Your task to perform on an android device: change notifications settings Image 0: 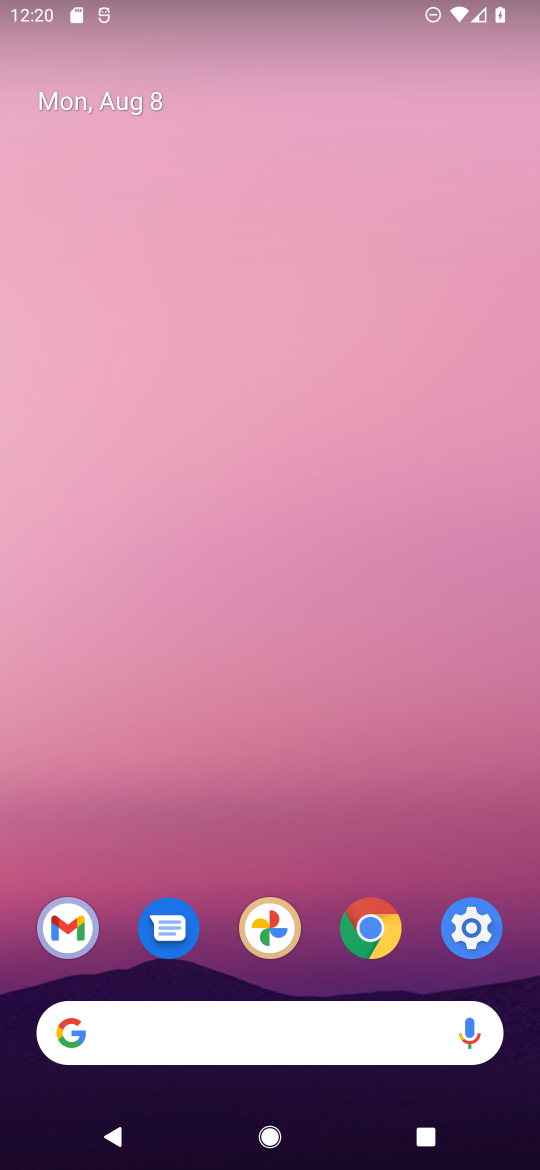
Step 0: drag from (377, 1044) to (251, 277)
Your task to perform on an android device: change notifications settings Image 1: 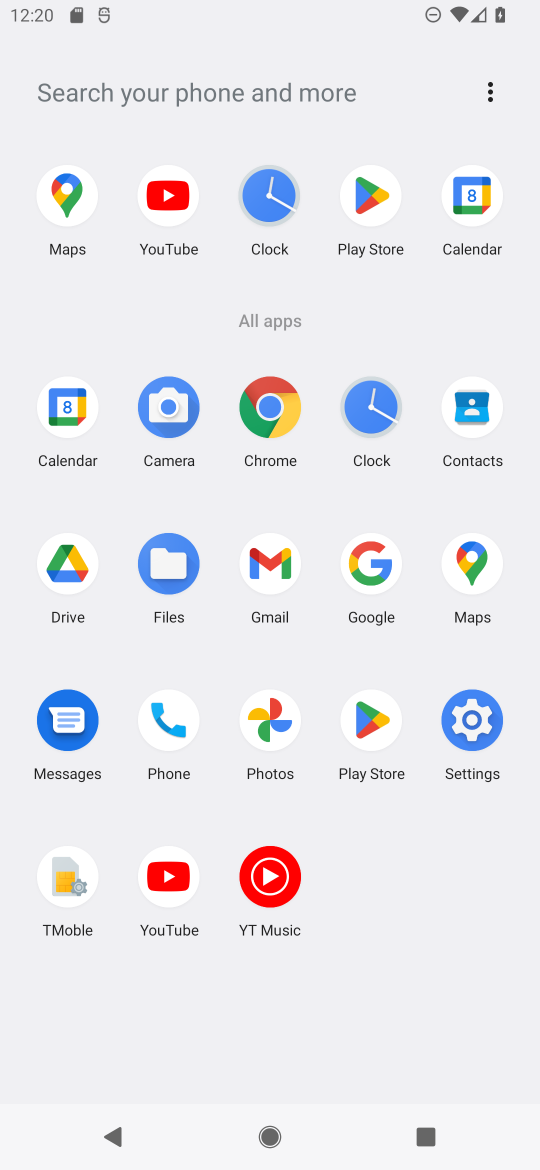
Step 1: click (467, 738)
Your task to perform on an android device: change notifications settings Image 2: 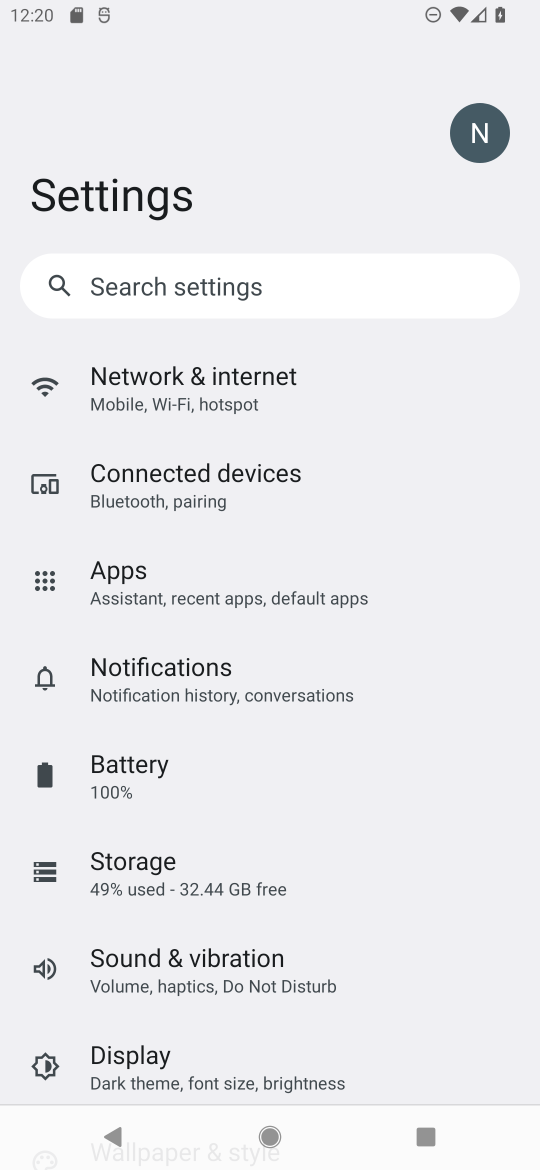
Step 2: click (169, 283)
Your task to perform on an android device: change notifications settings Image 3: 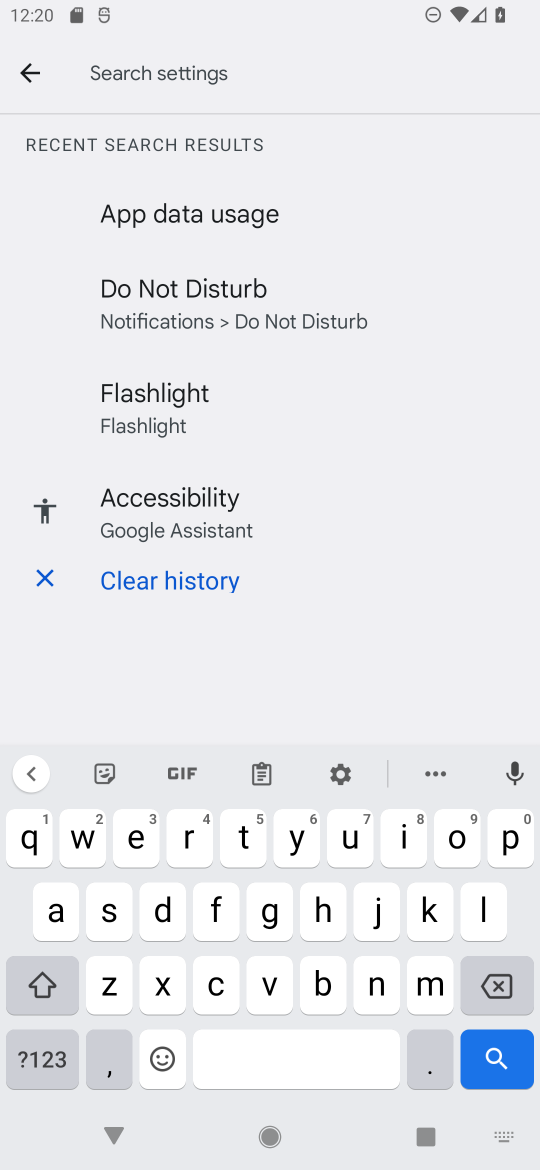
Step 3: click (374, 989)
Your task to perform on an android device: change notifications settings Image 4: 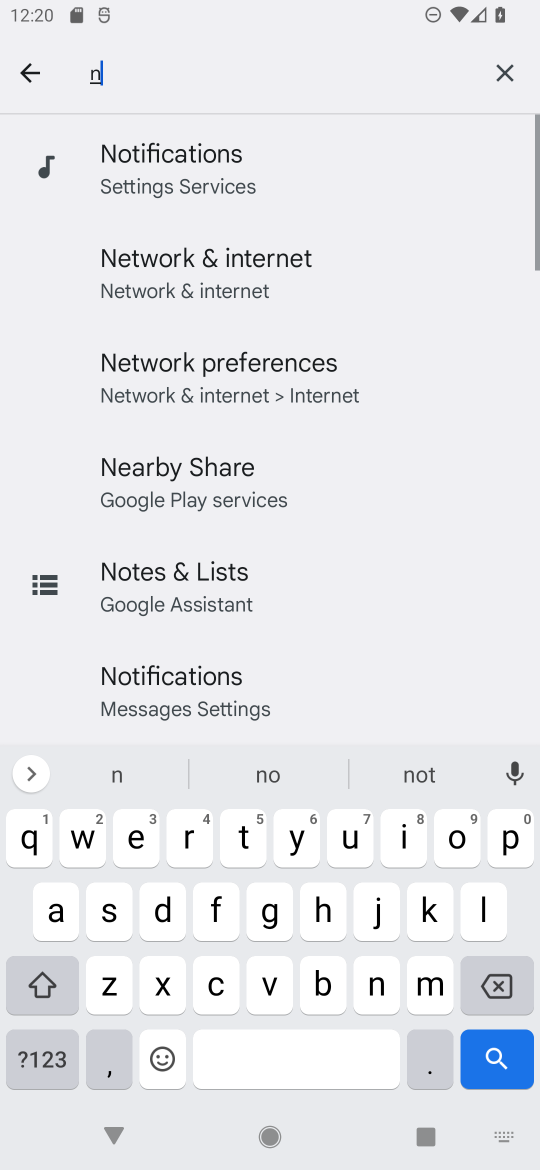
Step 4: click (459, 847)
Your task to perform on an android device: change notifications settings Image 5: 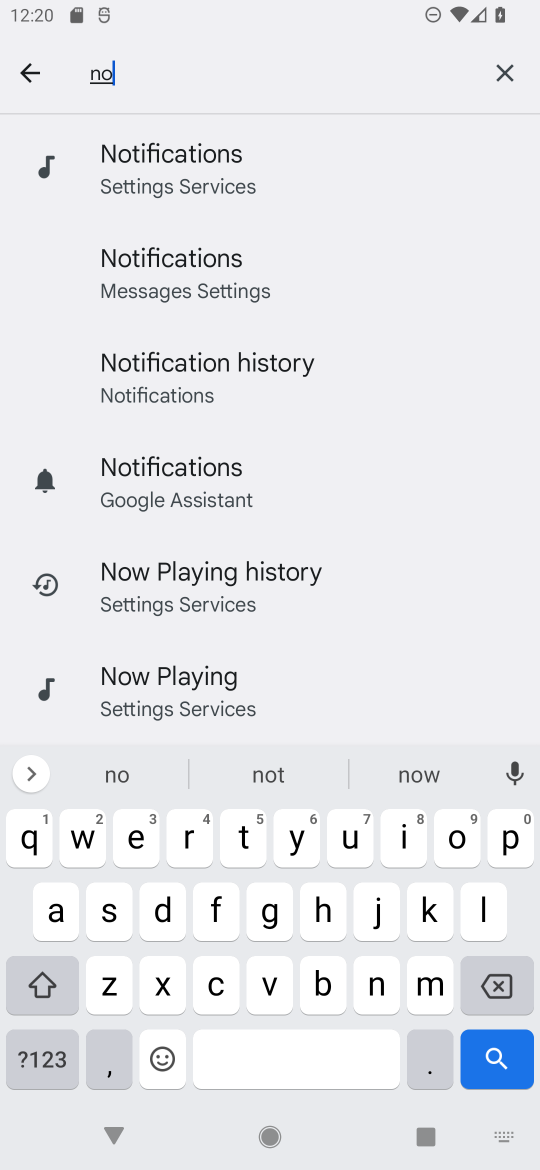
Step 5: click (204, 151)
Your task to perform on an android device: change notifications settings Image 6: 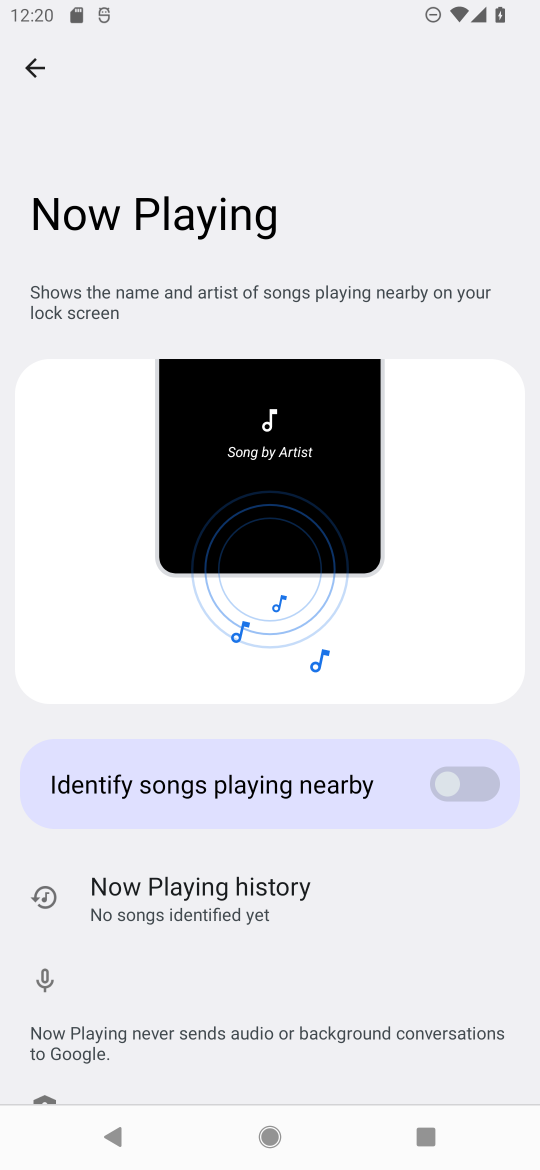
Step 6: task complete